Your task to perform on an android device: Go to privacy settings Image 0: 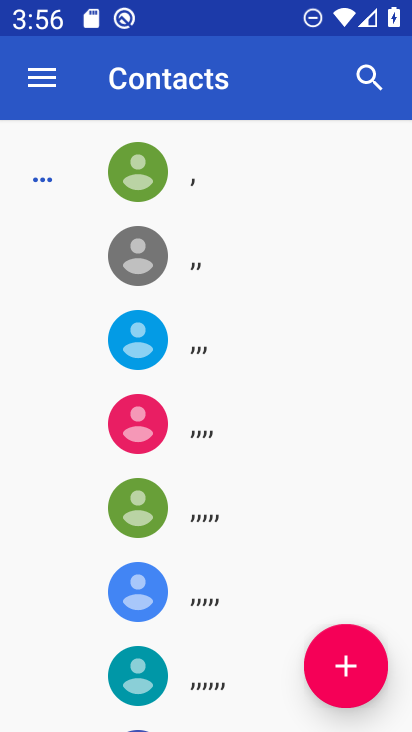
Step 0: press home button
Your task to perform on an android device: Go to privacy settings Image 1: 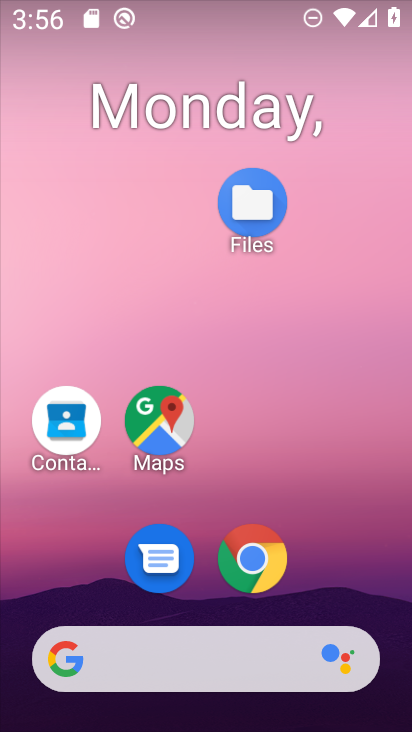
Step 1: drag from (254, 561) to (72, 729)
Your task to perform on an android device: Go to privacy settings Image 2: 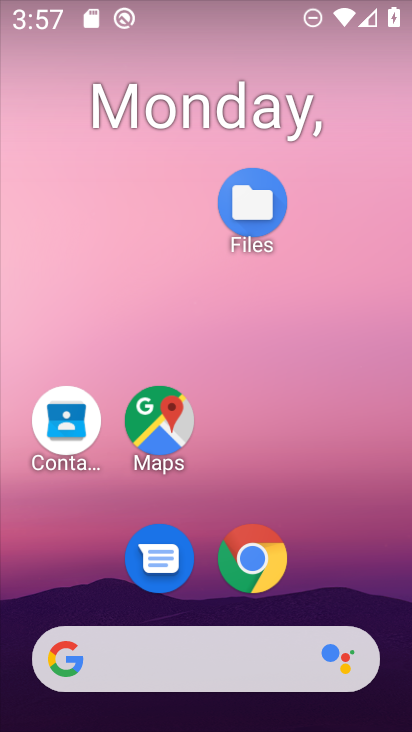
Step 2: drag from (279, 387) to (260, 82)
Your task to perform on an android device: Go to privacy settings Image 3: 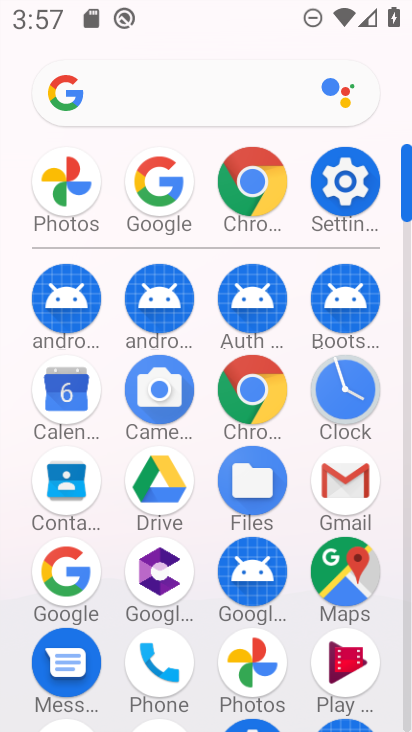
Step 3: click (329, 183)
Your task to perform on an android device: Go to privacy settings Image 4: 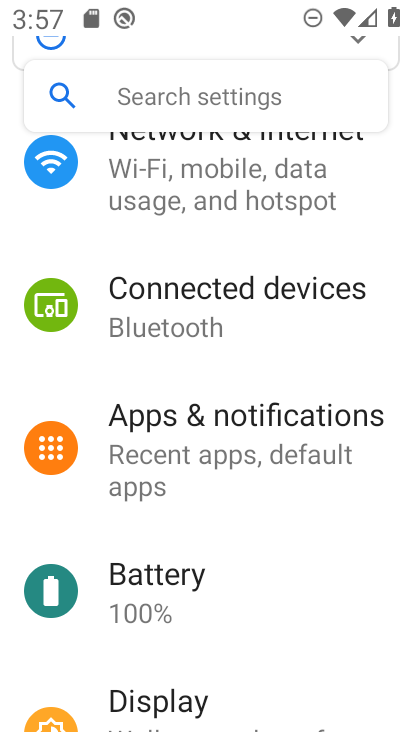
Step 4: drag from (255, 492) to (231, 108)
Your task to perform on an android device: Go to privacy settings Image 5: 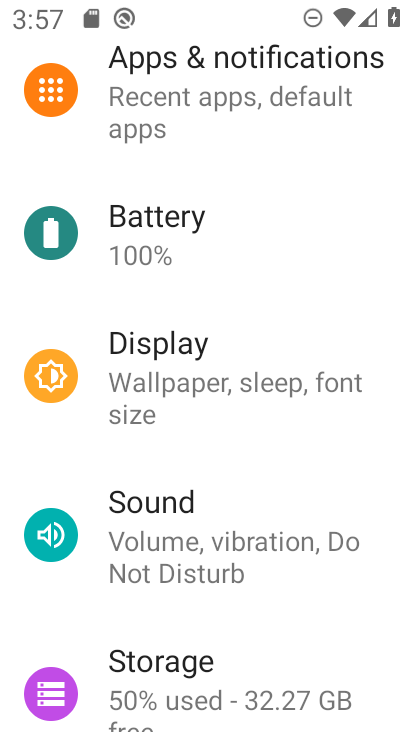
Step 5: drag from (189, 616) to (170, 88)
Your task to perform on an android device: Go to privacy settings Image 6: 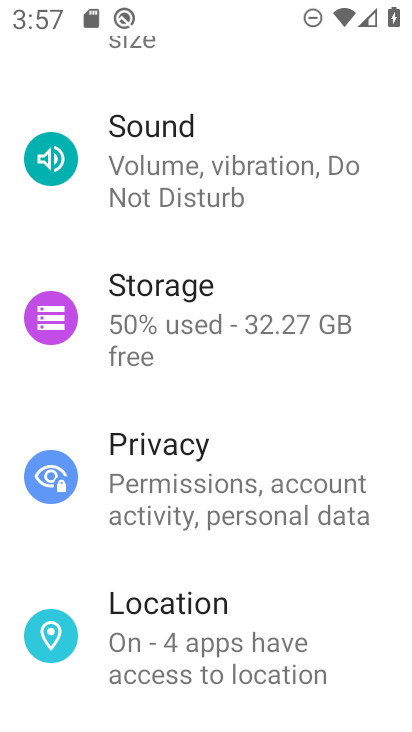
Step 6: click (227, 493)
Your task to perform on an android device: Go to privacy settings Image 7: 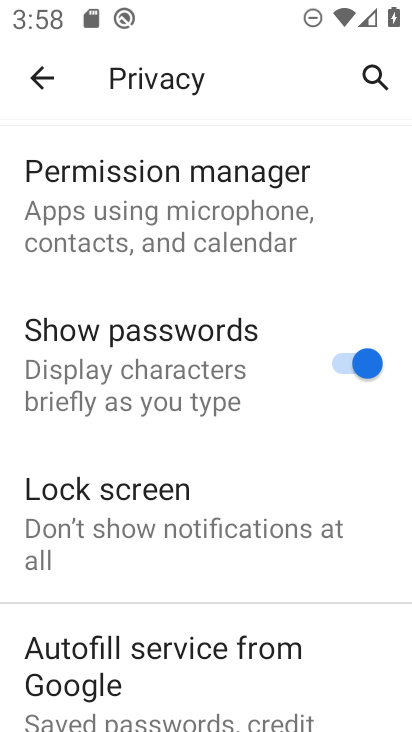
Step 7: task complete